Your task to perform on an android device: Go to notification settings Image 0: 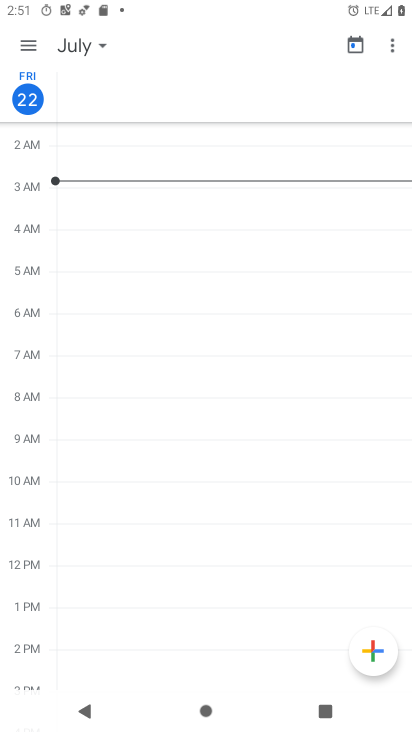
Step 0: press home button
Your task to perform on an android device: Go to notification settings Image 1: 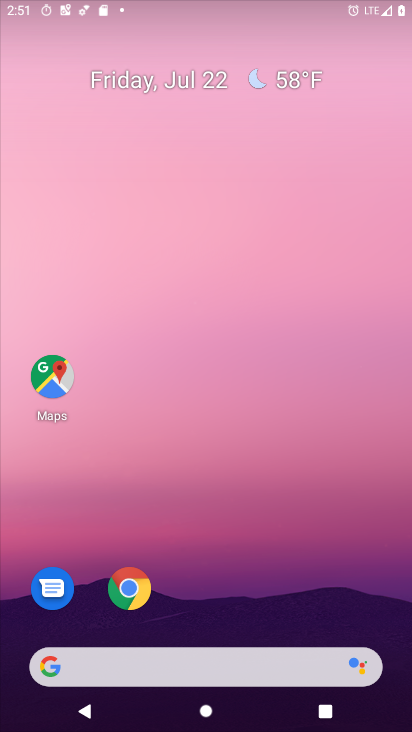
Step 1: drag from (273, 584) to (268, 103)
Your task to perform on an android device: Go to notification settings Image 2: 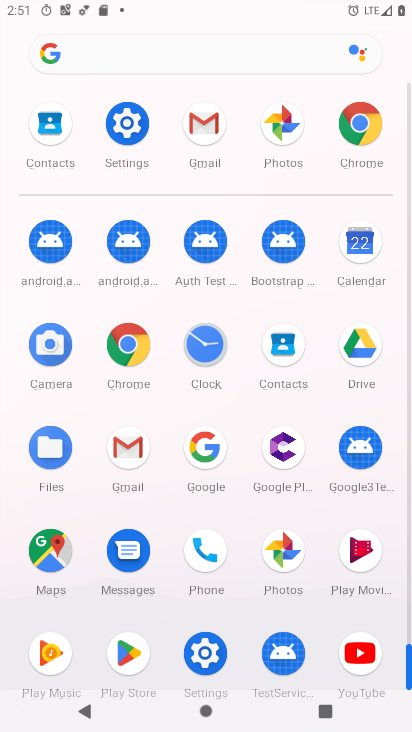
Step 2: drag from (216, 545) to (265, 154)
Your task to perform on an android device: Go to notification settings Image 3: 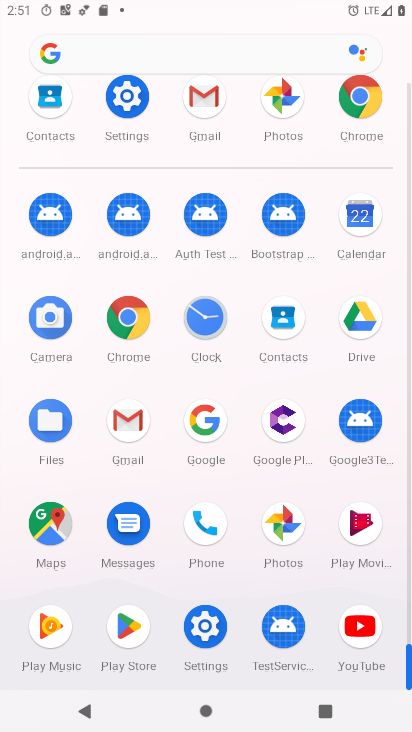
Step 3: click (197, 627)
Your task to perform on an android device: Go to notification settings Image 4: 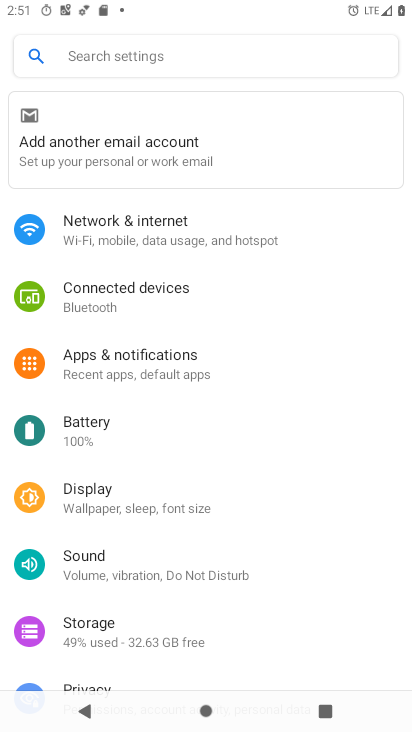
Step 4: drag from (124, 573) to (46, 290)
Your task to perform on an android device: Go to notification settings Image 5: 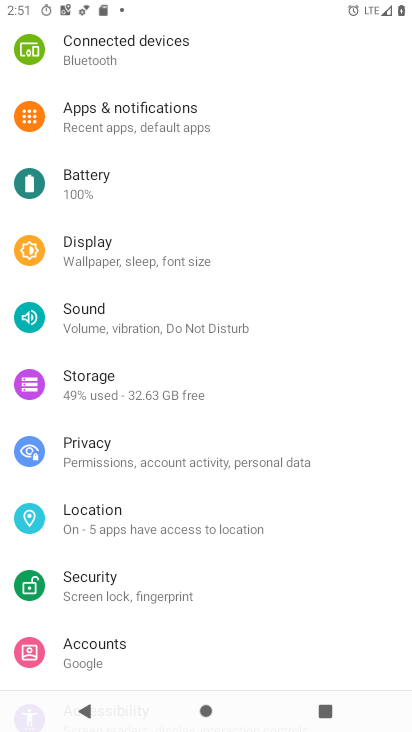
Step 5: click (116, 119)
Your task to perform on an android device: Go to notification settings Image 6: 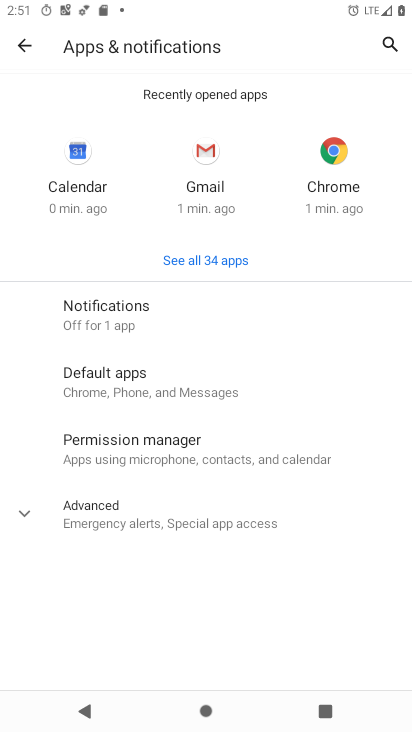
Step 6: click (120, 296)
Your task to perform on an android device: Go to notification settings Image 7: 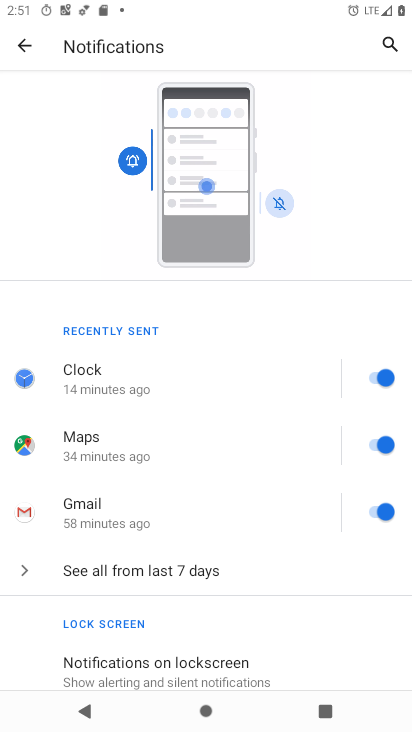
Step 7: task complete